Your task to perform on an android device: turn on bluetooth scan Image 0: 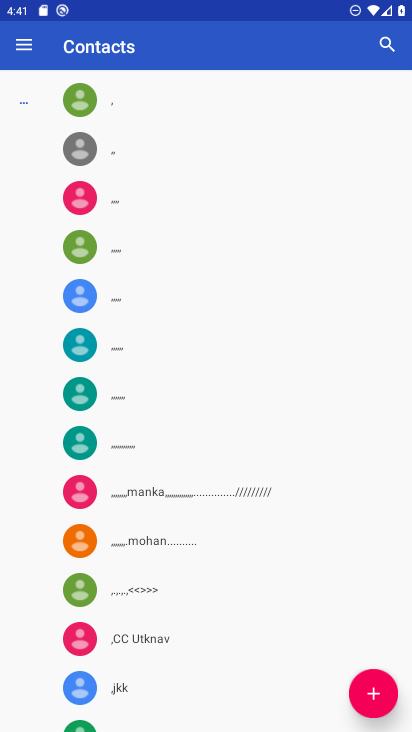
Step 0: press home button
Your task to perform on an android device: turn on bluetooth scan Image 1: 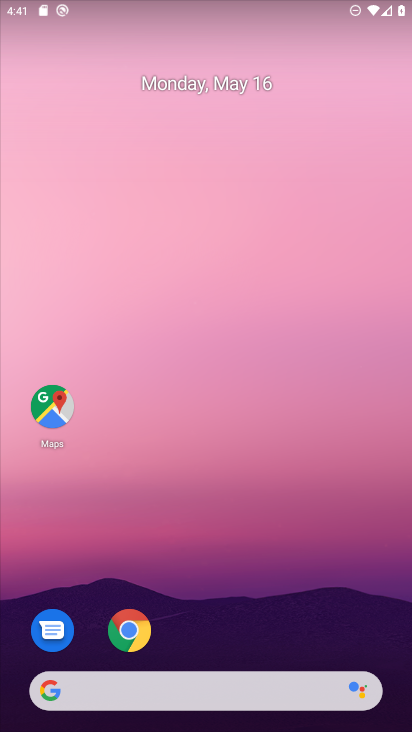
Step 1: drag from (240, 527) to (386, 12)
Your task to perform on an android device: turn on bluetooth scan Image 2: 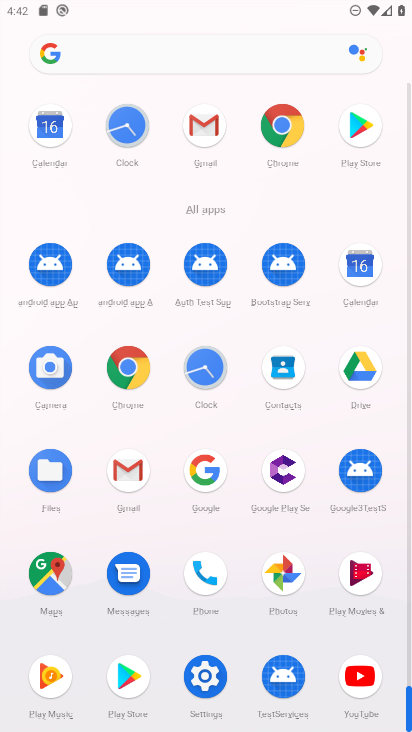
Step 2: click (173, 690)
Your task to perform on an android device: turn on bluetooth scan Image 3: 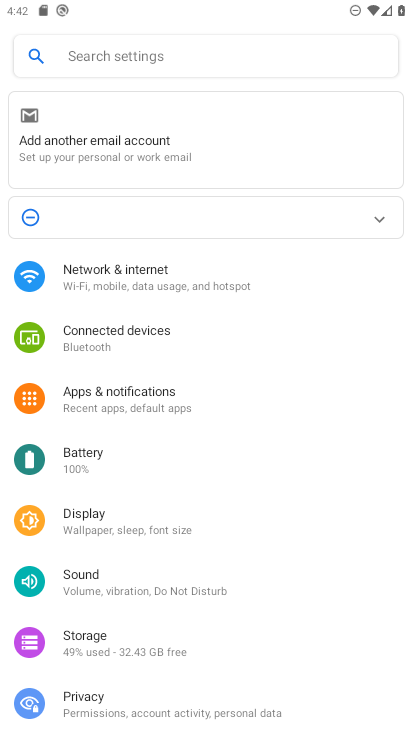
Step 3: drag from (180, 609) to (312, 22)
Your task to perform on an android device: turn on bluetooth scan Image 4: 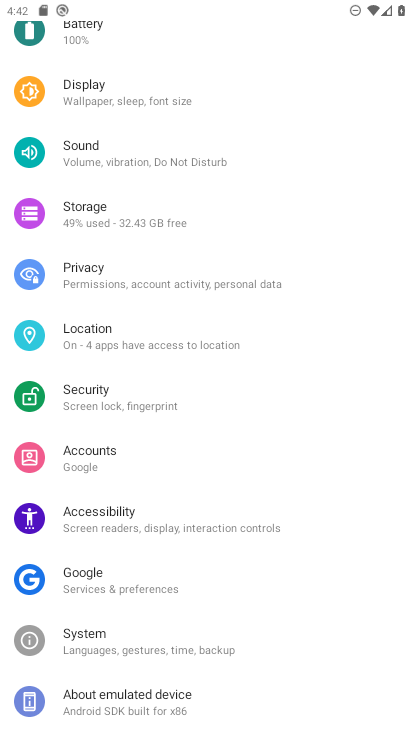
Step 4: click (139, 353)
Your task to perform on an android device: turn on bluetooth scan Image 5: 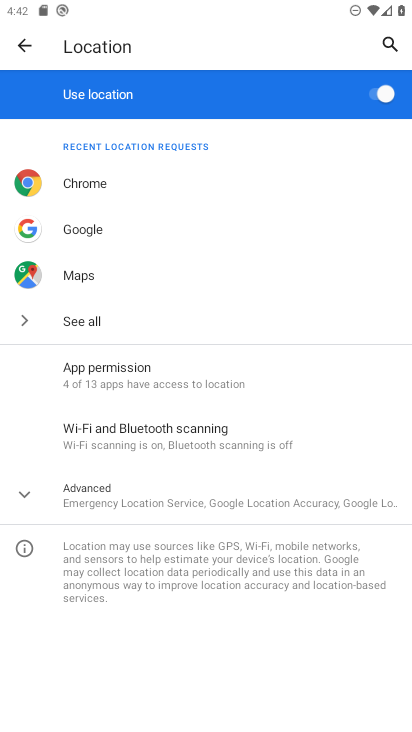
Step 5: click (122, 318)
Your task to perform on an android device: turn on bluetooth scan Image 6: 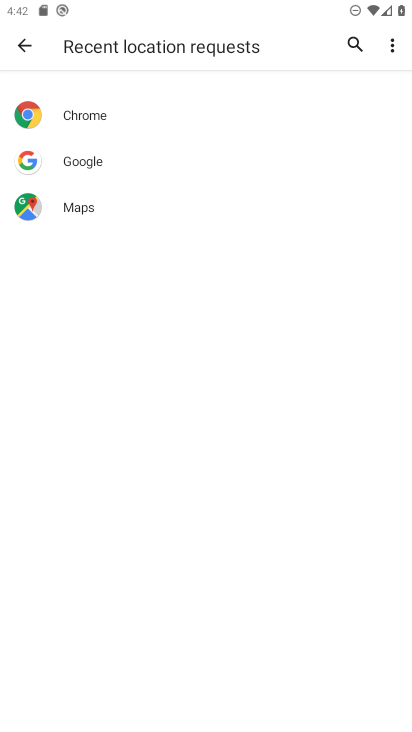
Step 6: click (30, 54)
Your task to perform on an android device: turn on bluetooth scan Image 7: 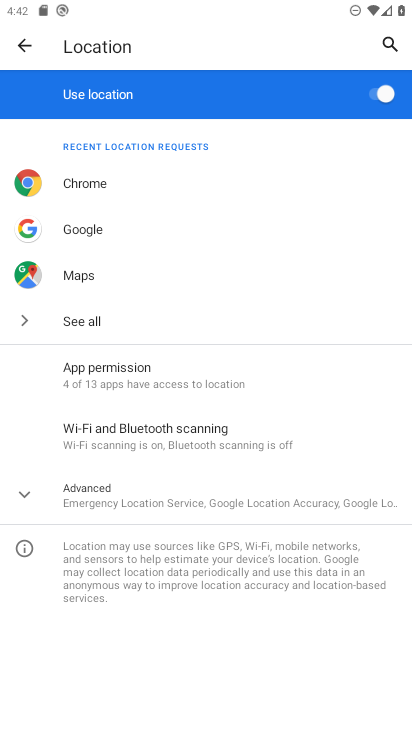
Step 7: click (119, 433)
Your task to perform on an android device: turn on bluetooth scan Image 8: 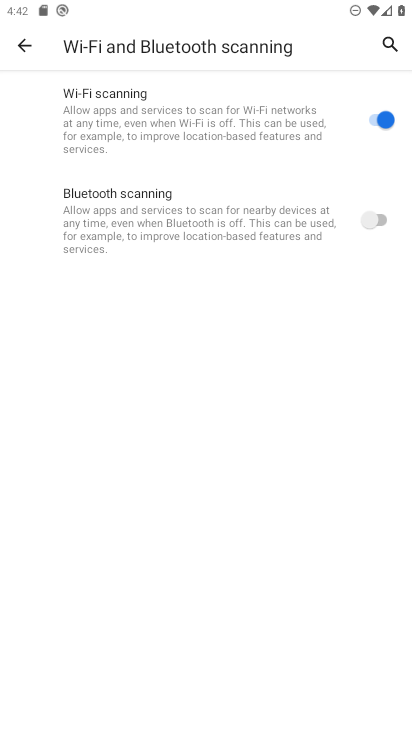
Step 8: click (191, 215)
Your task to perform on an android device: turn on bluetooth scan Image 9: 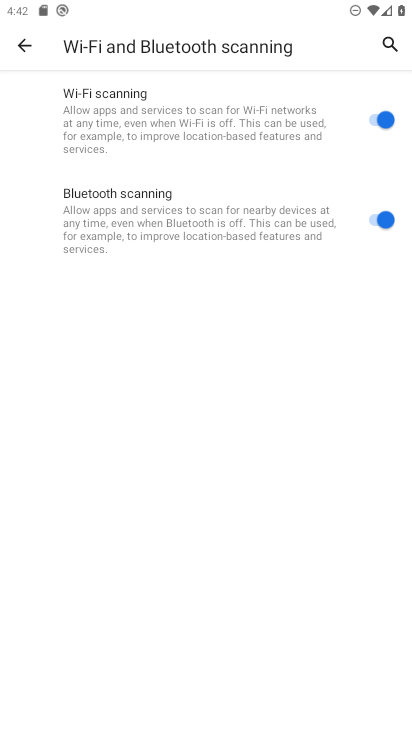
Step 9: task complete